Your task to perform on an android device: Search for lg ultragear on target.com, select the first entry, and add it to the cart. Image 0: 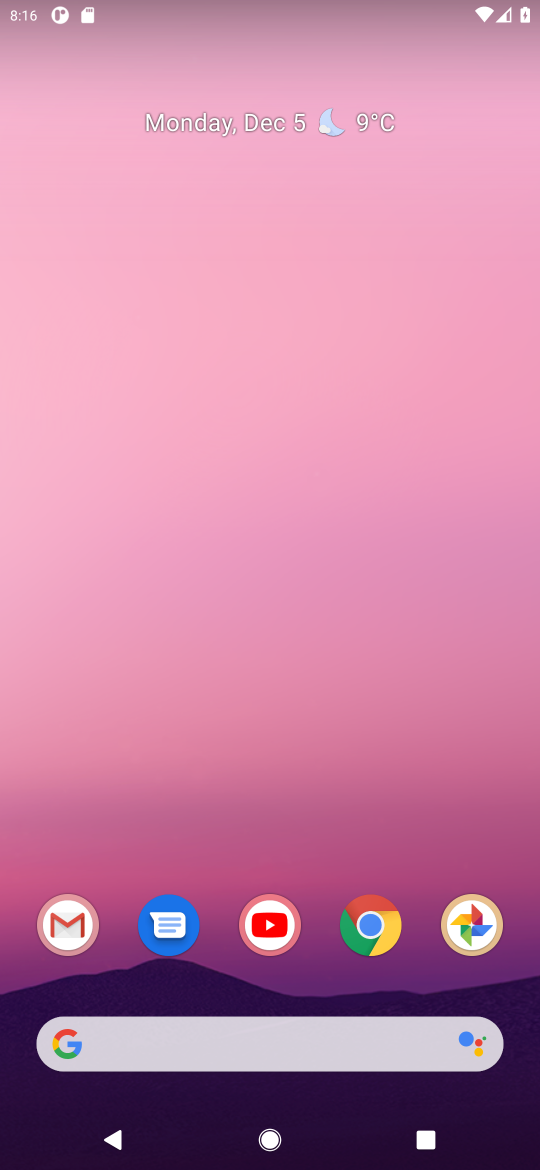
Step 0: click (371, 941)
Your task to perform on an android device: Search for lg ultragear on target.com, select the first entry, and add it to the cart. Image 1: 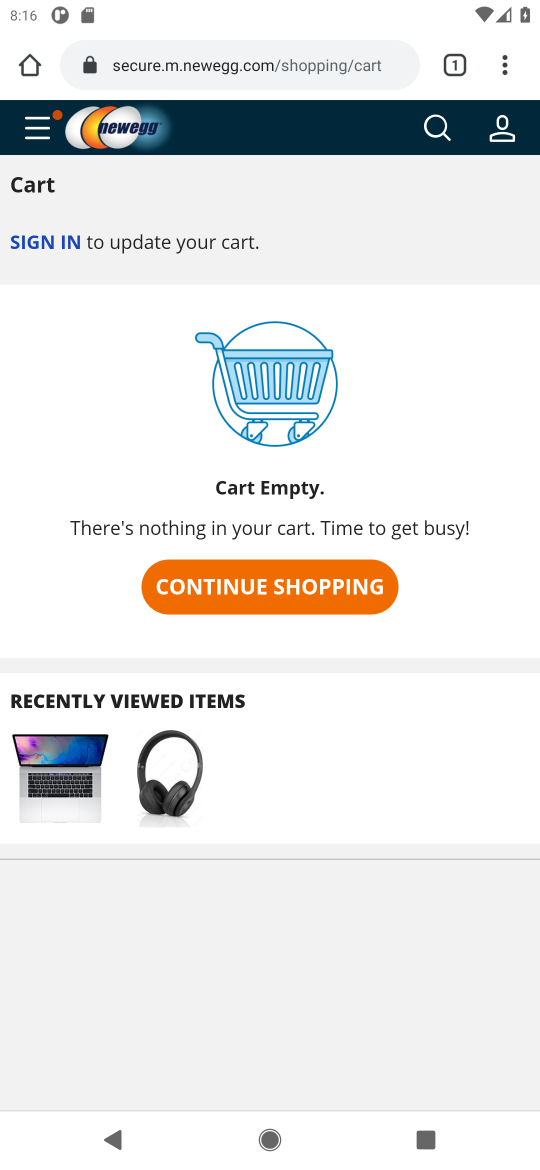
Step 1: click (245, 72)
Your task to perform on an android device: Search for lg ultragear on target.com, select the first entry, and add it to the cart. Image 2: 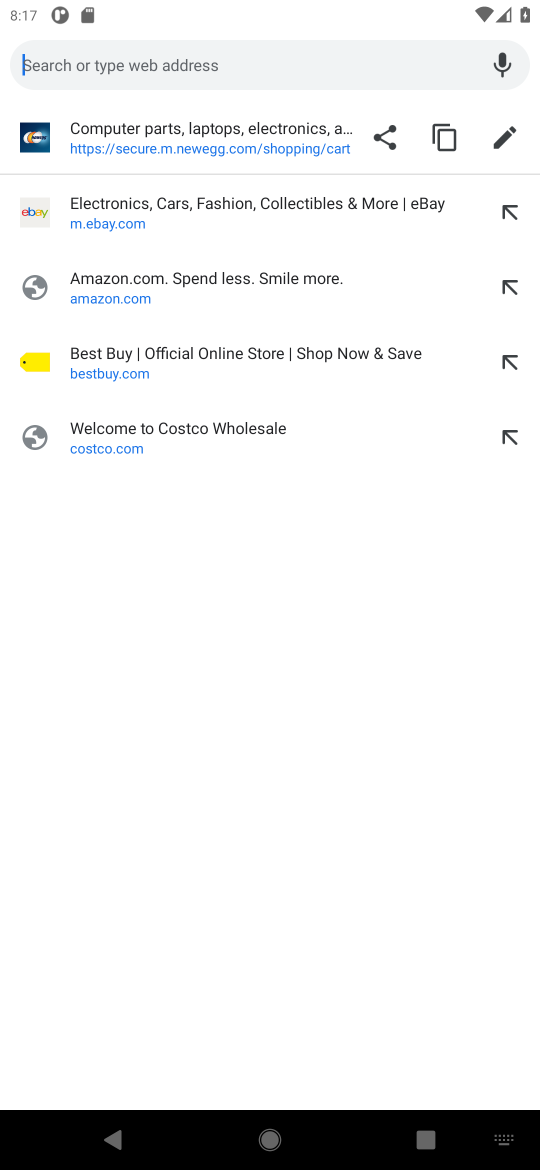
Step 2: type "target.com"
Your task to perform on an android device: Search for lg ultragear on target.com, select the first entry, and add it to the cart. Image 3: 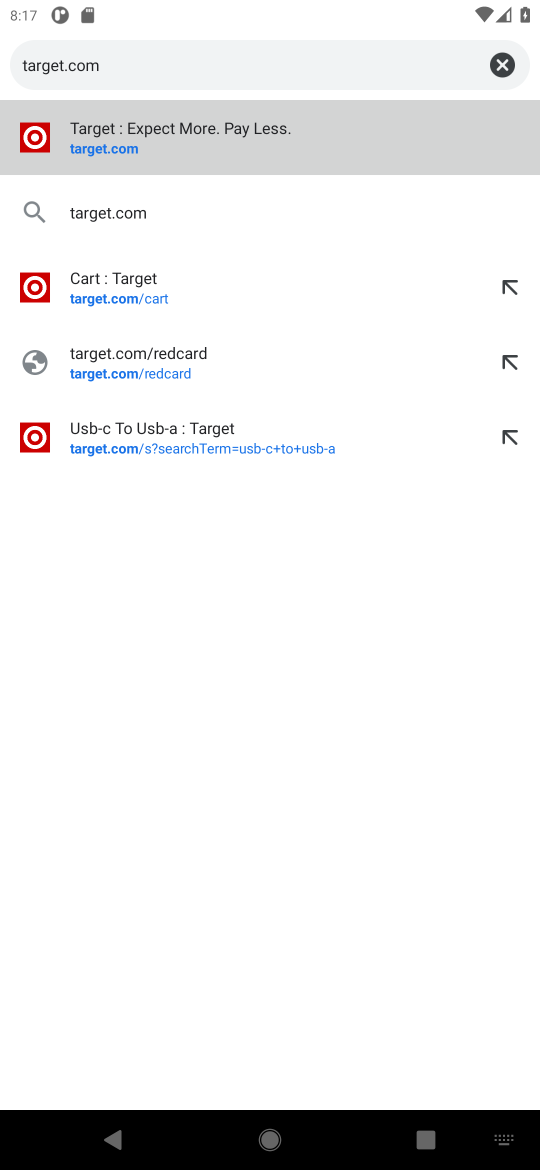
Step 3: click (112, 132)
Your task to perform on an android device: Search for lg ultragear on target.com, select the first entry, and add it to the cart. Image 4: 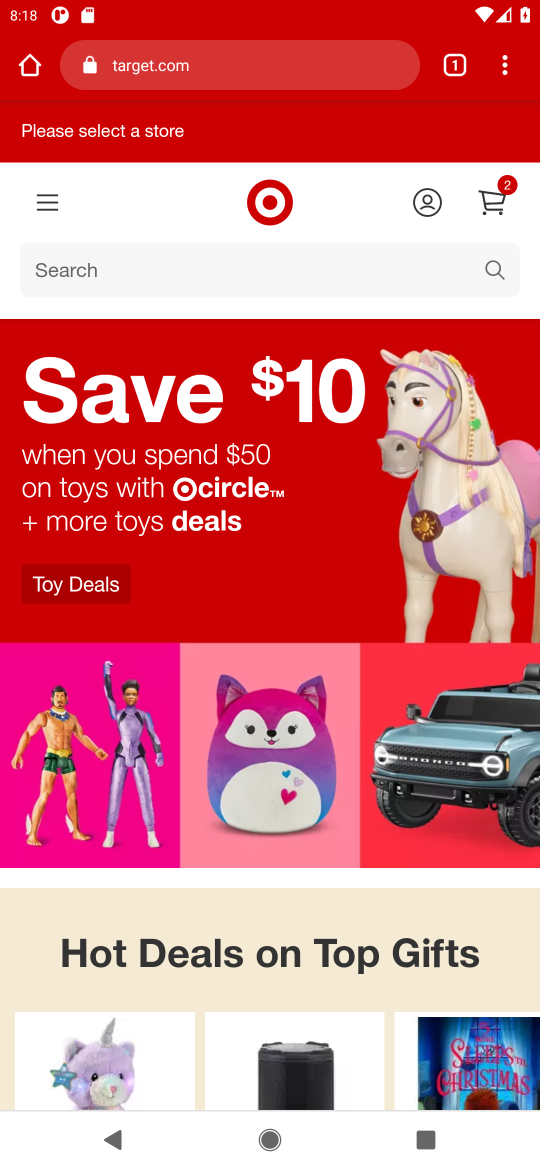
Step 4: click (64, 271)
Your task to perform on an android device: Search for lg ultragear on target.com, select the first entry, and add it to the cart. Image 5: 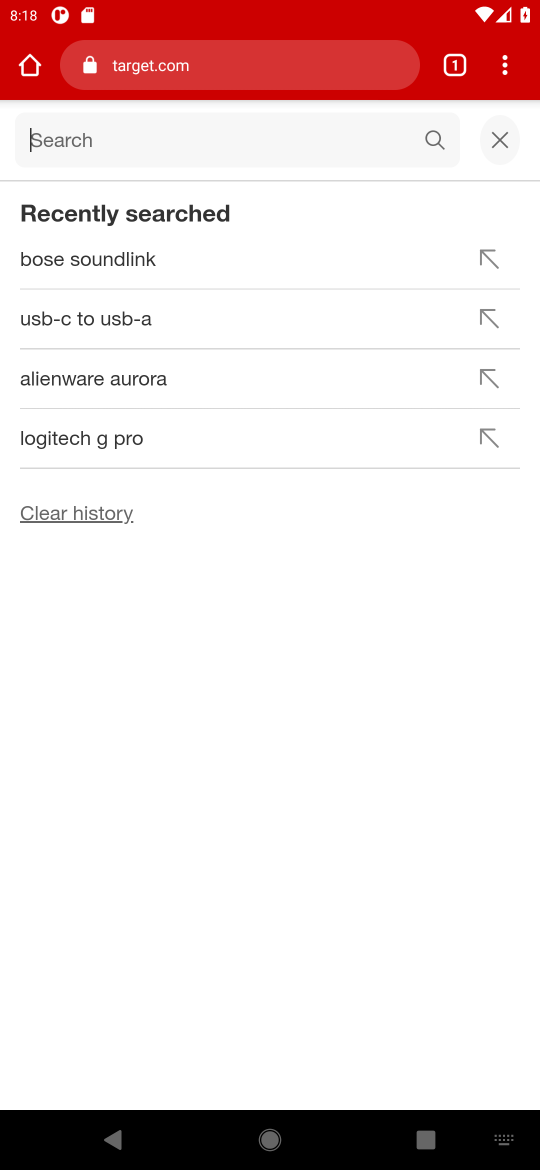
Step 5: type "lg ultragear"
Your task to perform on an android device: Search for lg ultragear on target.com, select the first entry, and add it to the cart. Image 6: 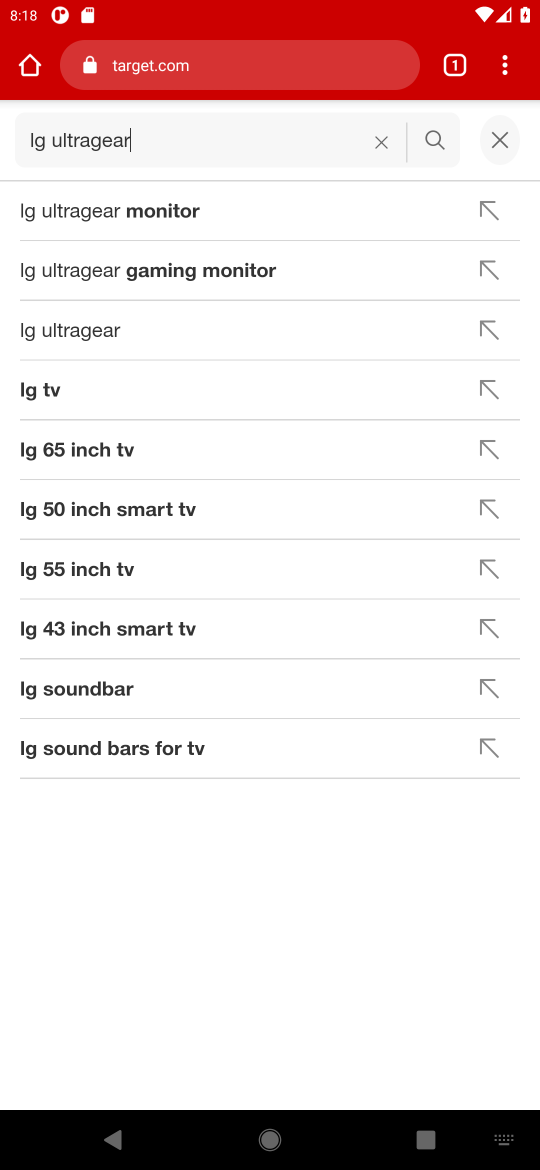
Step 6: click (84, 329)
Your task to perform on an android device: Search for lg ultragear on target.com, select the first entry, and add it to the cart. Image 7: 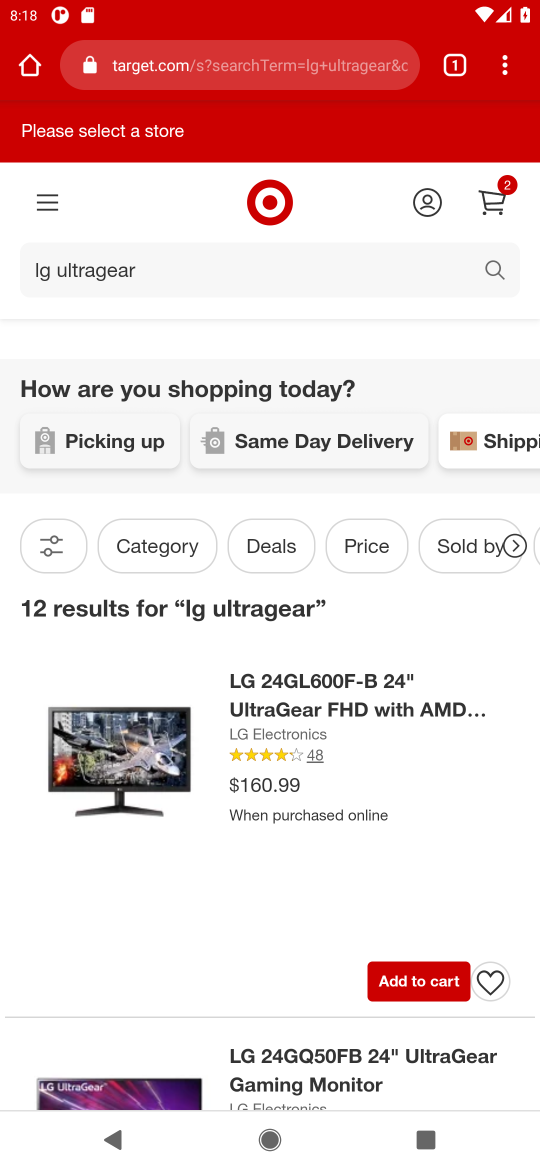
Step 7: click (429, 990)
Your task to perform on an android device: Search for lg ultragear on target.com, select the first entry, and add it to the cart. Image 8: 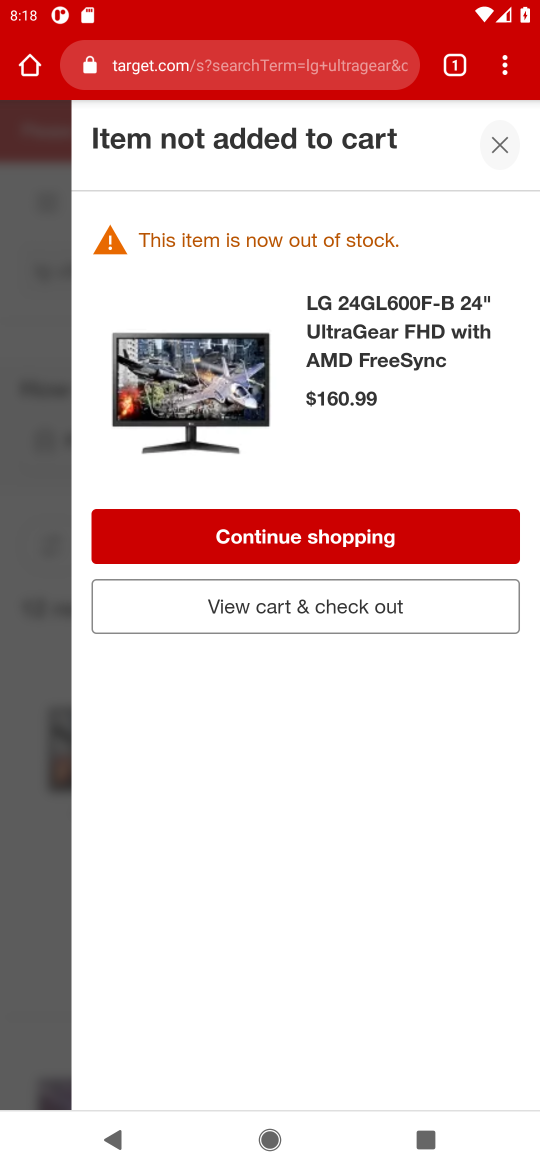
Step 8: task complete